Your task to perform on an android device: uninstall "McDonald's" Image 0: 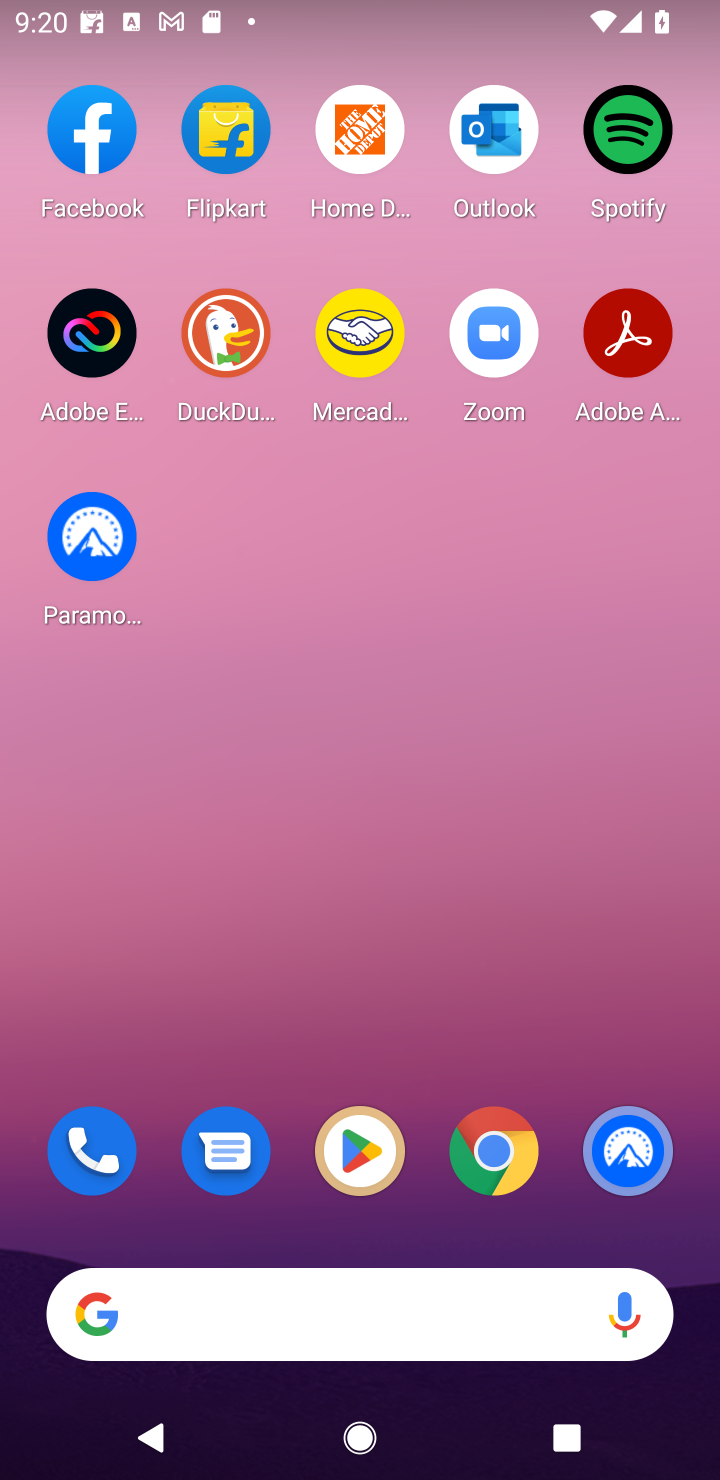
Step 0: press home button
Your task to perform on an android device: uninstall "McDonald's" Image 1: 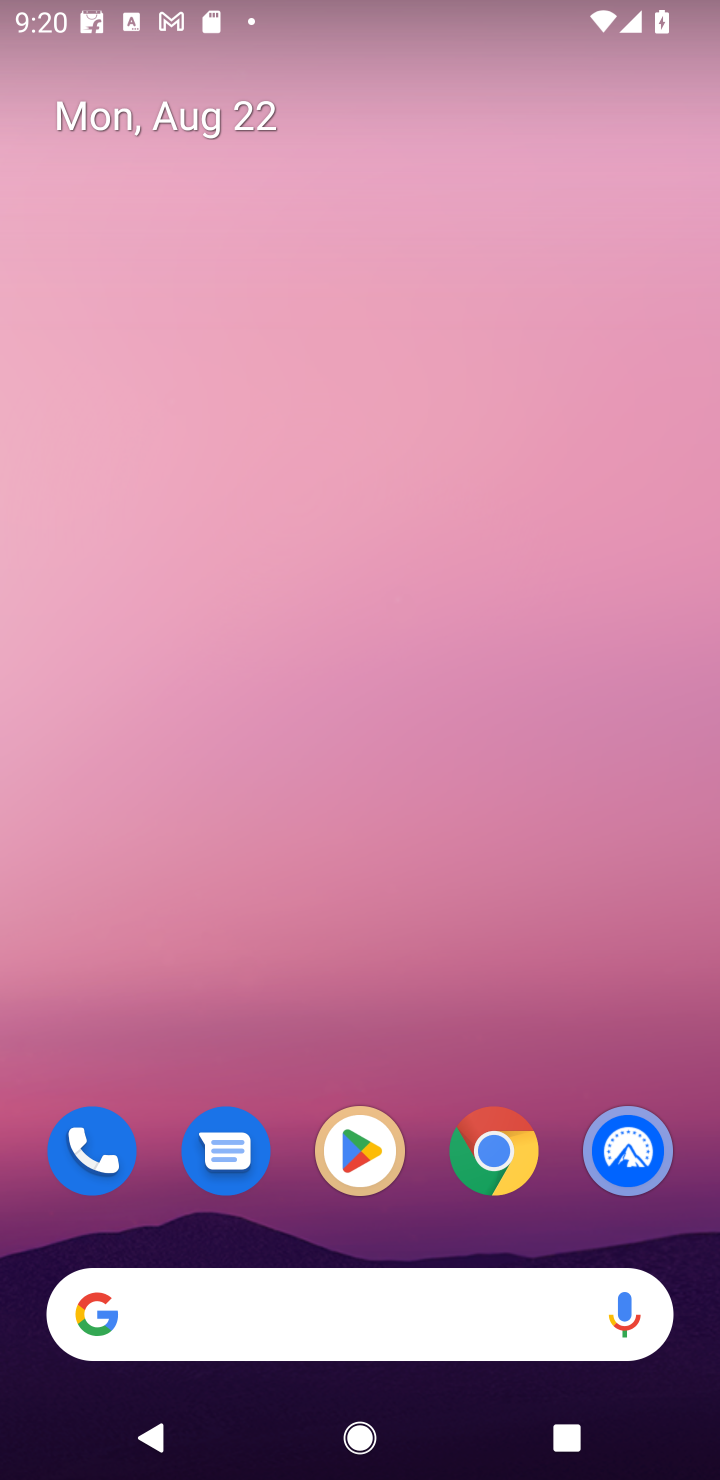
Step 1: click (337, 1147)
Your task to perform on an android device: uninstall "McDonald's" Image 2: 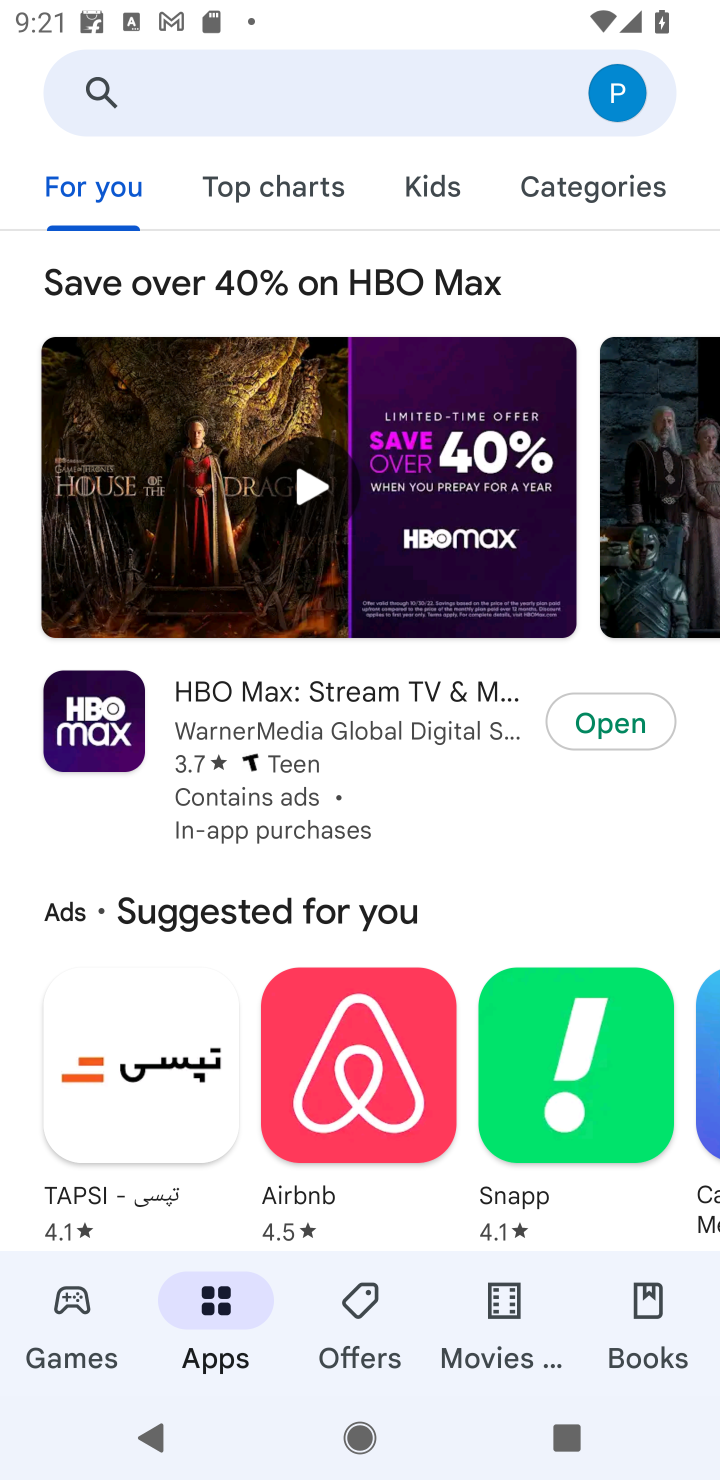
Step 2: click (378, 92)
Your task to perform on an android device: uninstall "McDonald's" Image 3: 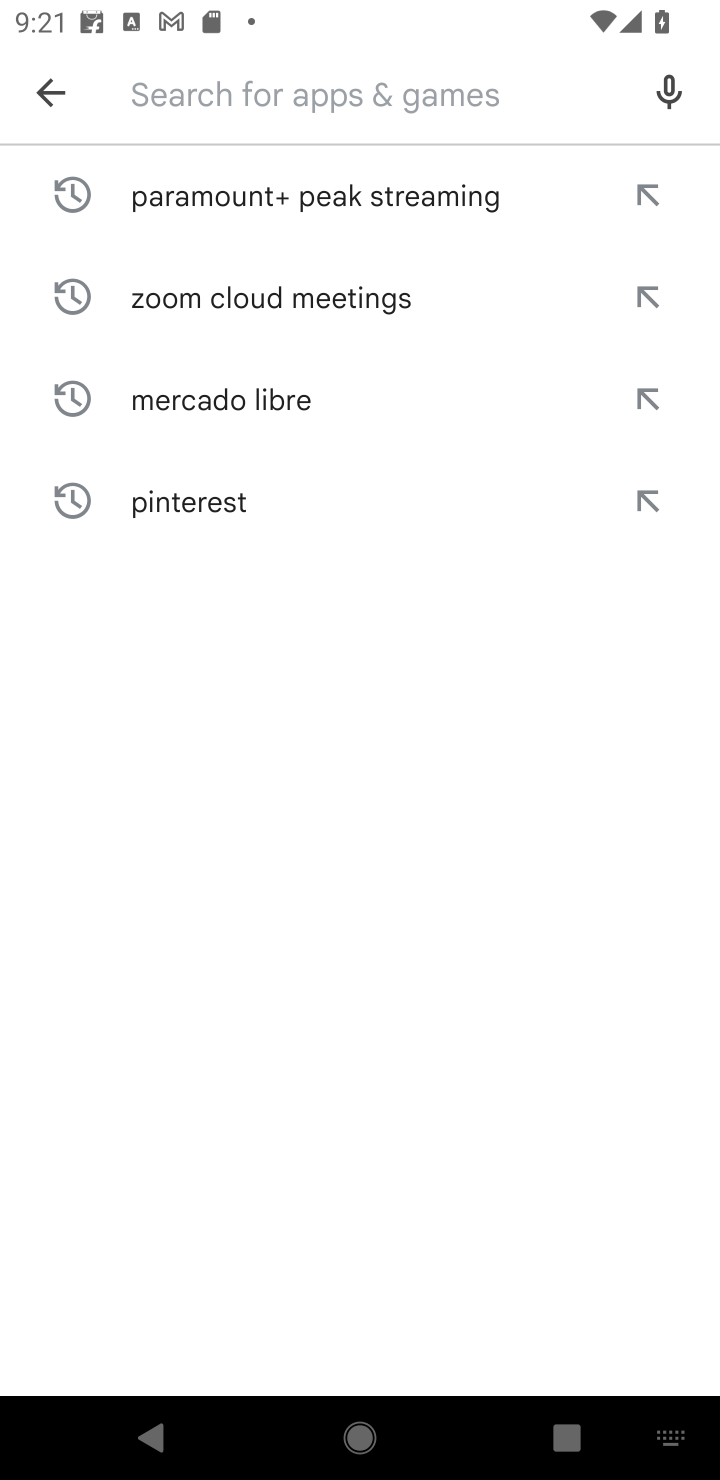
Step 3: type "McDonald's"
Your task to perform on an android device: uninstall "McDonald's" Image 4: 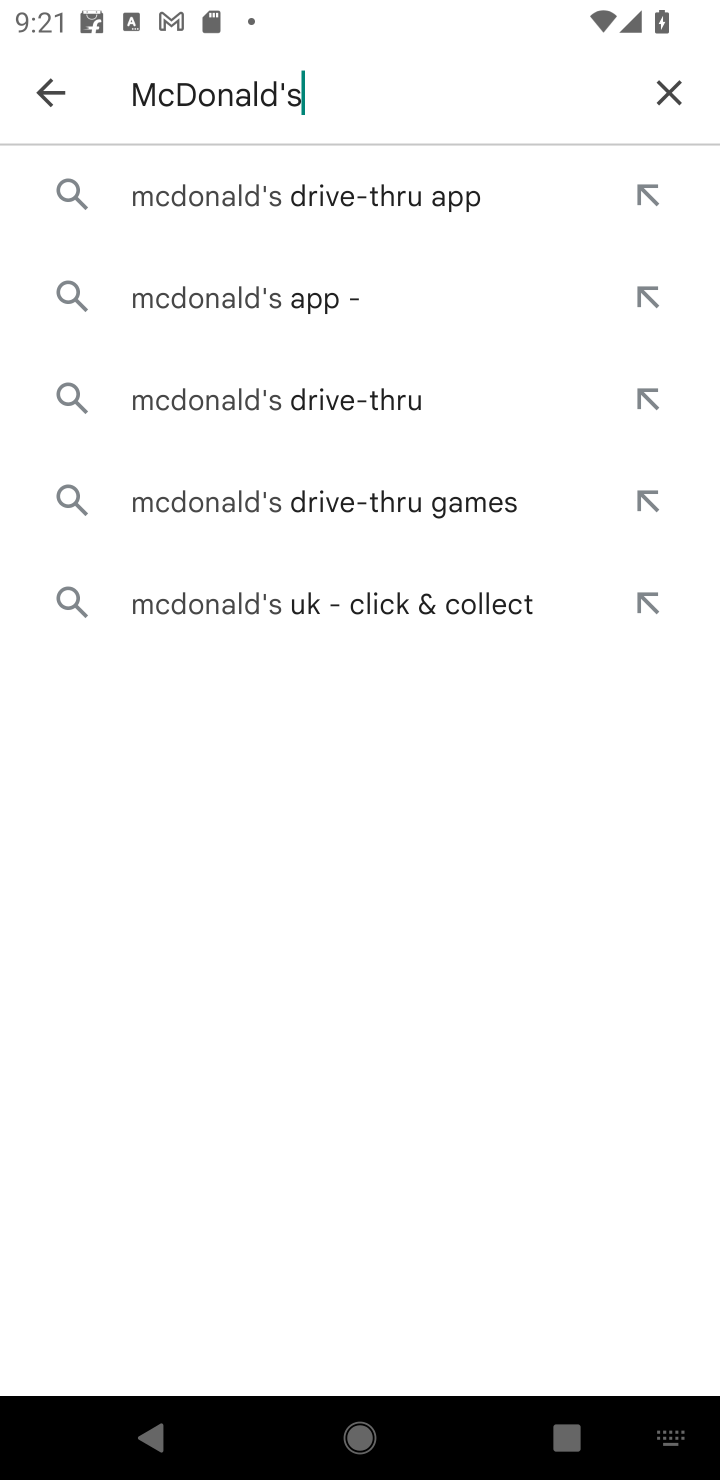
Step 4: click (284, 207)
Your task to perform on an android device: uninstall "McDonald's" Image 5: 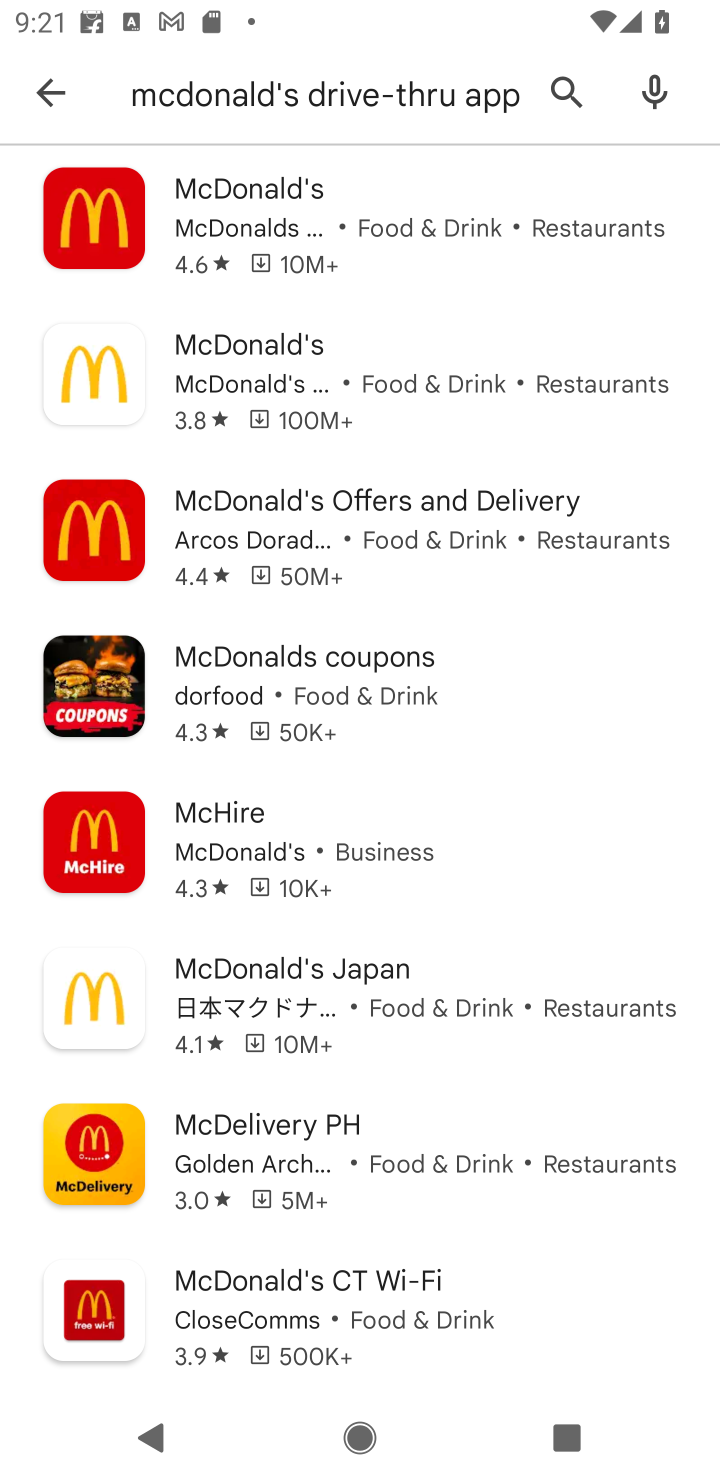
Step 5: click (267, 236)
Your task to perform on an android device: uninstall "McDonald's" Image 6: 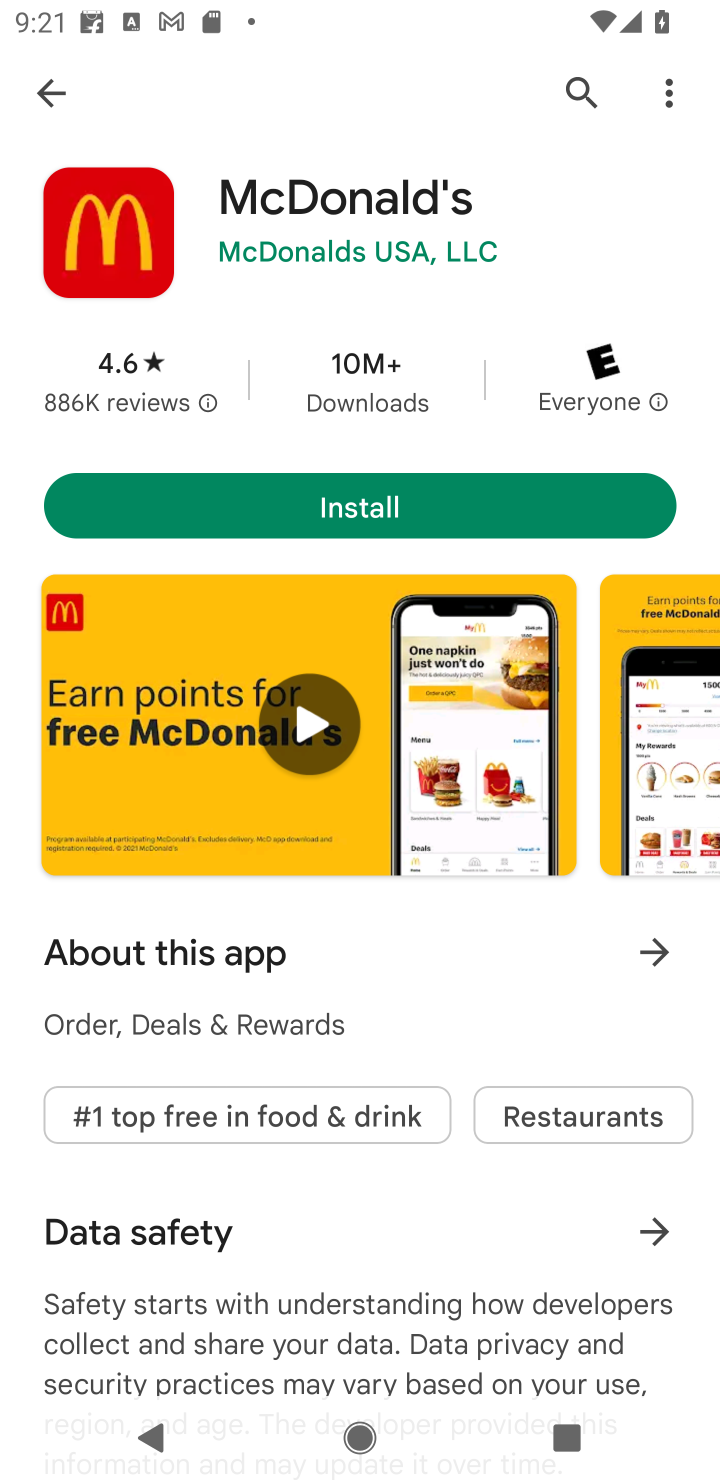
Step 6: task complete